Your task to perform on an android device: Open Google Maps and go to "Timeline" Image 0: 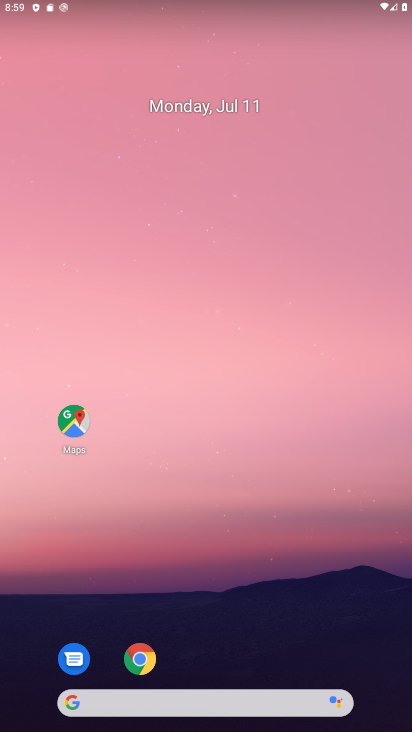
Step 0: drag from (193, 728) to (185, 135)
Your task to perform on an android device: Open Google Maps and go to "Timeline" Image 1: 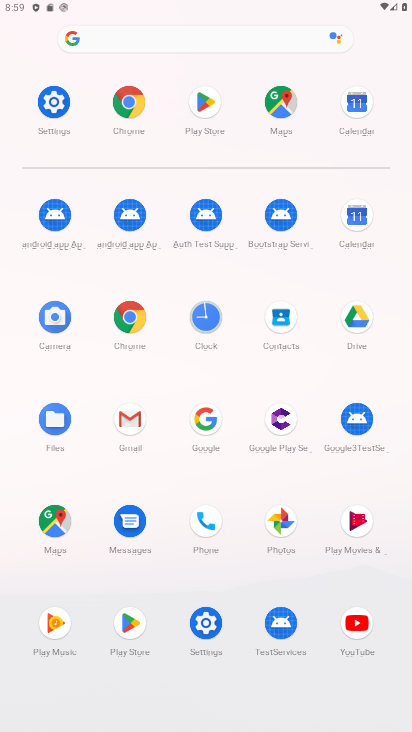
Step 1: click (52, 518)
Your task to perform on an android device: Open Google Maps and go to "Timeline" Image 2: 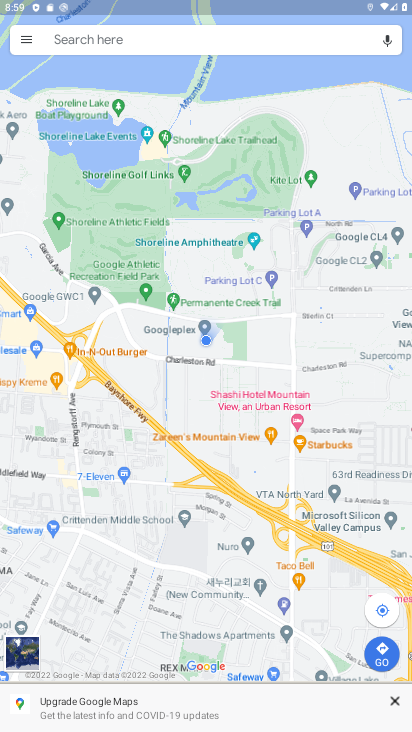
Step 2: click (24, 37)
Your task to perform on an android device: Open Google Maps and go to "Timeline" Image 3: 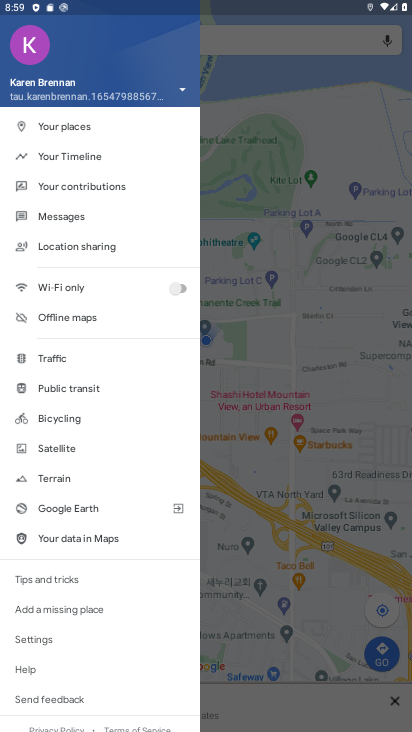
Step 3: click (77, 154)
Your task to perform on an android device: Open Google Maps and go to "Timeline" Image 4: 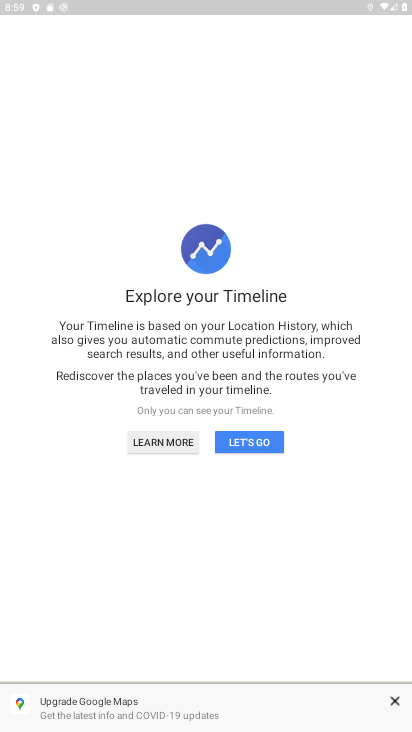
Step 4: click (248, 437)
Your task to perform on an android device: Open Google Maps and go to "Timeline" Image 5: 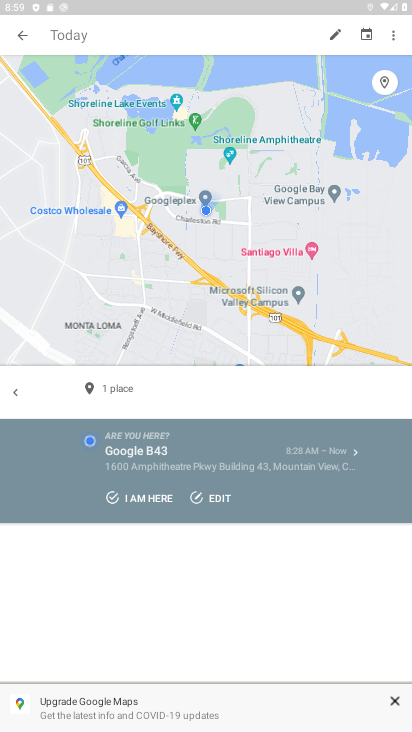
Step 5: task complete